Your task to perform on an android device: Open the phone app and click the voicemail tab. Image 0: 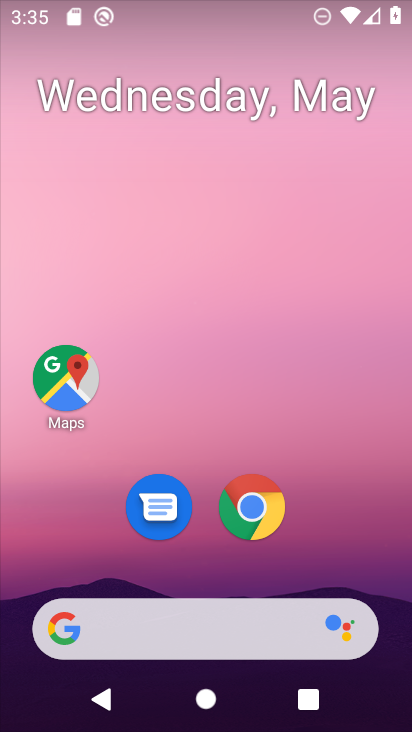
Step 0: drag from (194, 575) to (306, 42)
Your task to perform on an android device: Open the phone app and click the voicemail tab. Image 1: 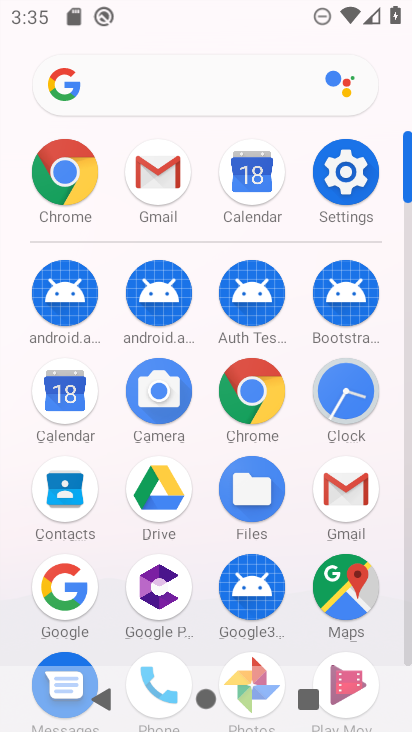
Step 1: click (151, 649)
Your task to perform on an android device: Open the phone app and click the voicemail tab. Image 2: 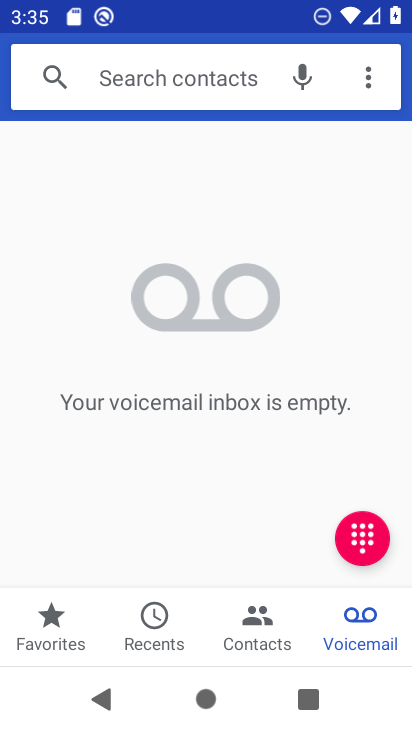
Step 2: click (357, 609)
Your task to perform on an android device: Open the phone app and click the voicemail tab. Image 3: 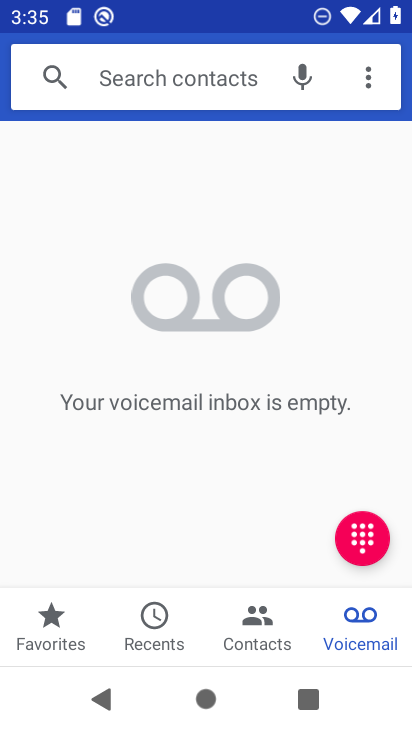
Step 3: task complete